Your task to perform on an android device: Go to Wikipedia Image 0: 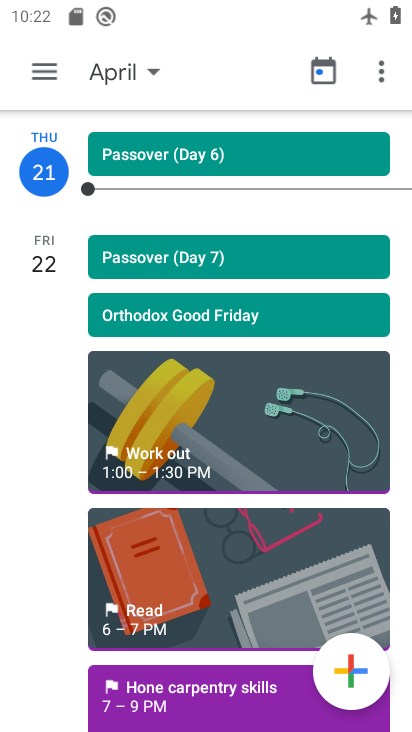
Step 0: press home button
Your task to perform on an android device: Go to Wikipedia Image 1: 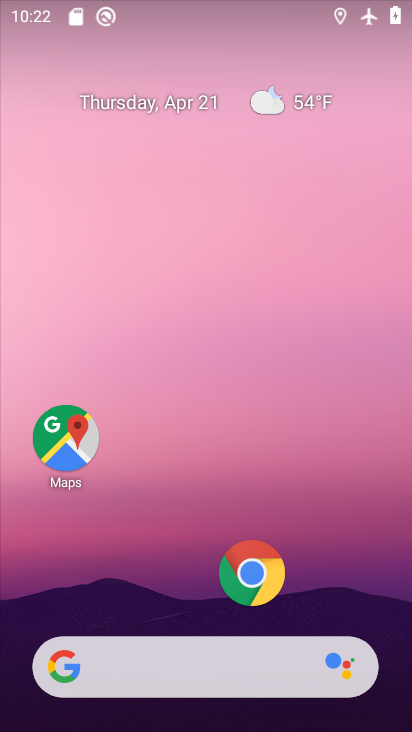
Step 1: click (180, 661)
Your task to perform on an android device: Go to Wikipedia Image 2: 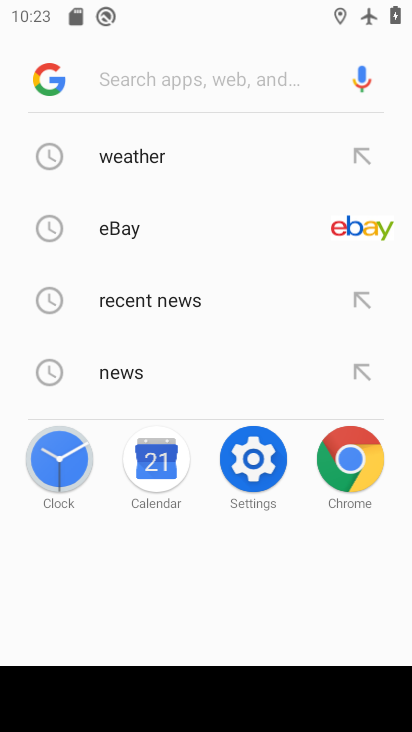
Step 2: click (190, 85)
Your task to perform on an android device: Go to Wikipedia Image 3: 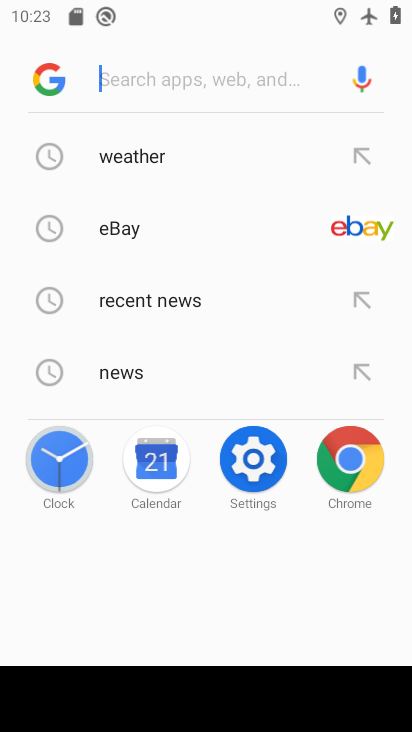
Step 3: type "Wikipedia"
Your task to perform on an android device: Go to Wikipedia Image 4: 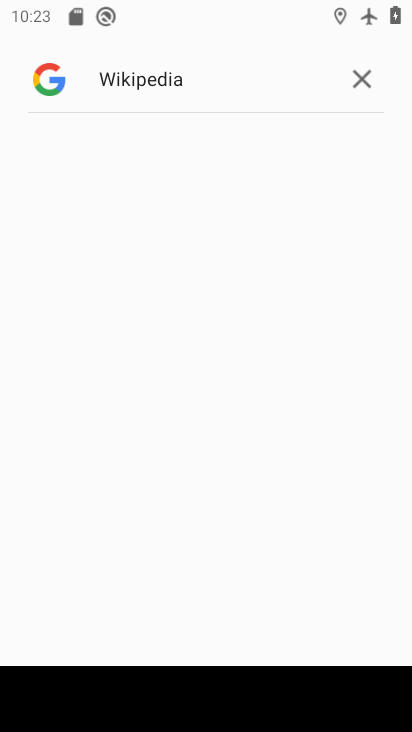
Step 4: task complete